Your task to perform on an android device: turn on wifi Image 0: 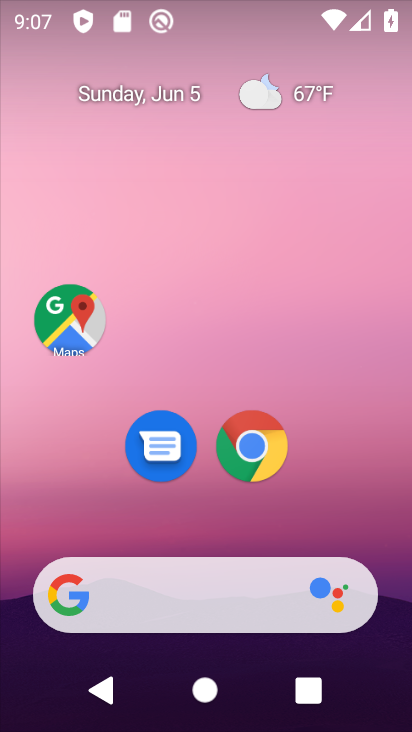
Step 0: drag from (199, 533) to (172, 148)
Your task to perform on an android device: turn on wifi Image 1: 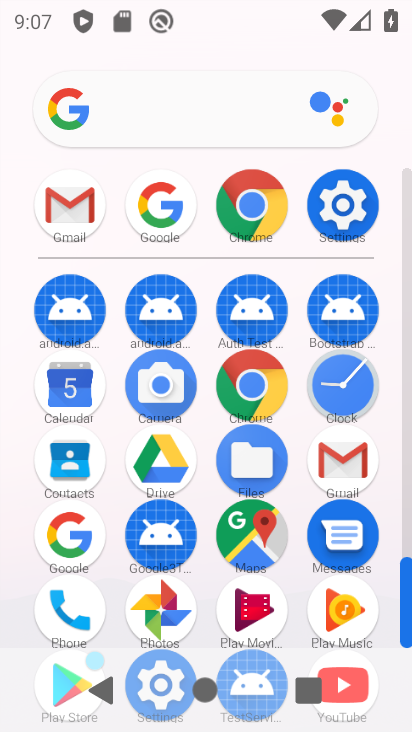
Step 1: click (324, 186)
Your task to perform on an android device: turn on wifi Image 2: 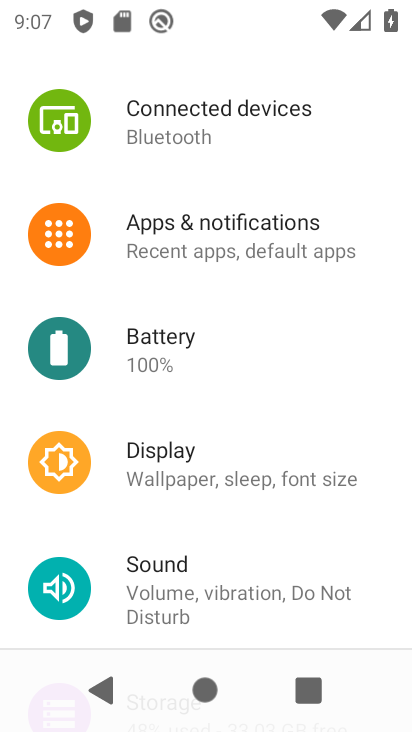
Step 2: drag from (240, 182) to (236, 561)
Your task to perform on an android device: turn on wifi Image 3: 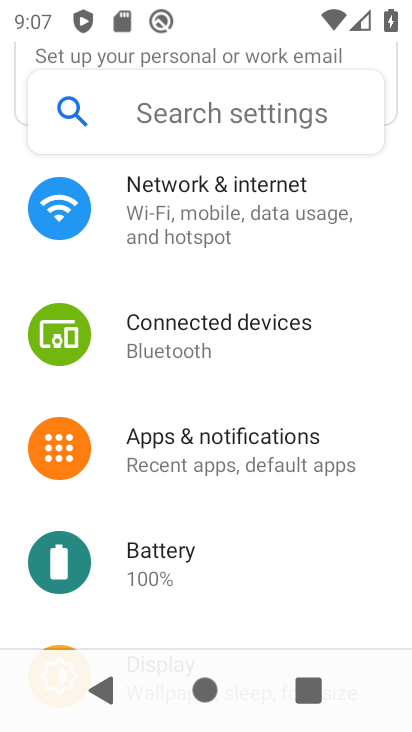
Step 3: click (233, 213)
Your task to perform on an android device: turn on wifi Image 4: 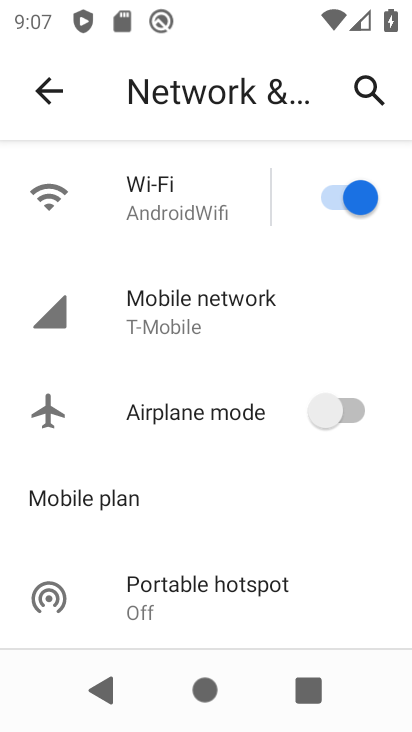
Step 4: task complete